Your task to perform on an android device: What's the weather today? Image 0: 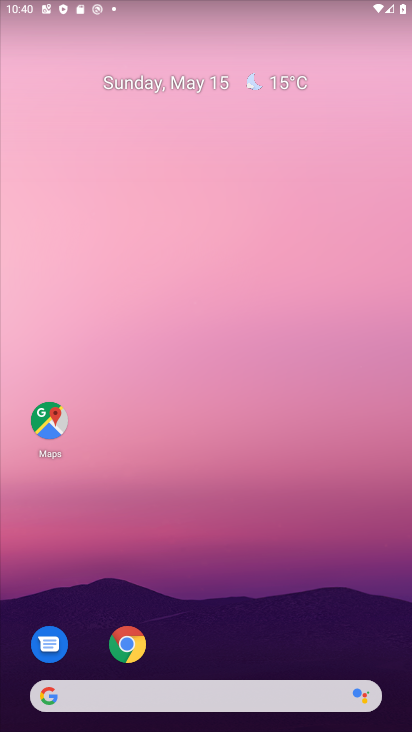
Step 0: drag from (186, 680) to (235, 400)
Your task to perform on an android device: What's the weather today? Image 1: 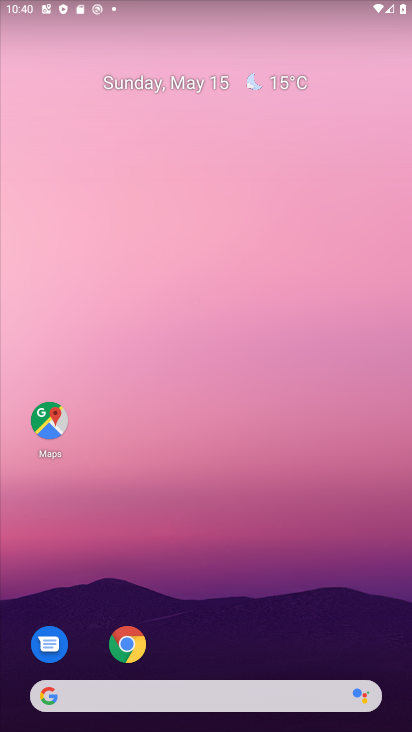
Step 1: drag from (195, 665) to (183, 177)
Your task to perform on an android device: What's the weather today? Image 2: 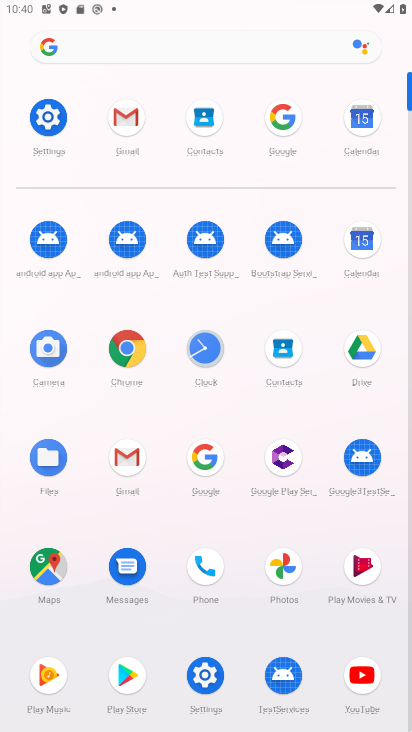
Step 2: click (215, 454)
Your task to perform on an android device: What's the weather today? Image 3: 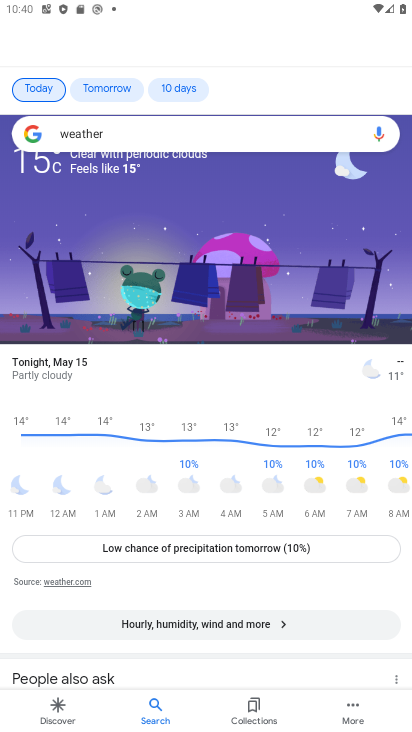
Step 3: task complete